Your task to perform on an android device: Search for Italian restaurants on Maps Image 0: 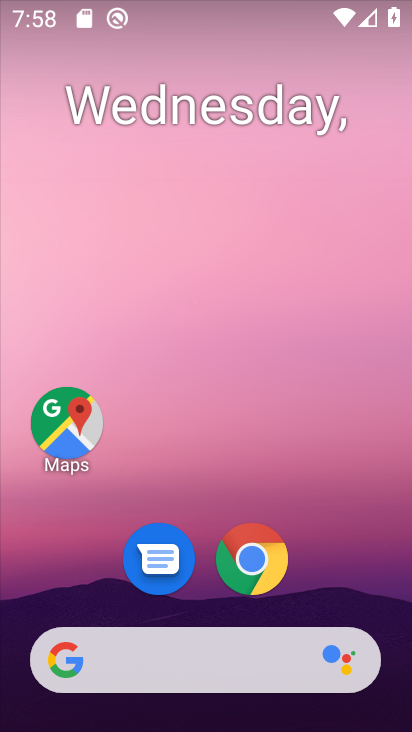
Step 0: click (67, 436)
Your task to perform on an android device: Search for Italian restaurants on Maps Image 1: 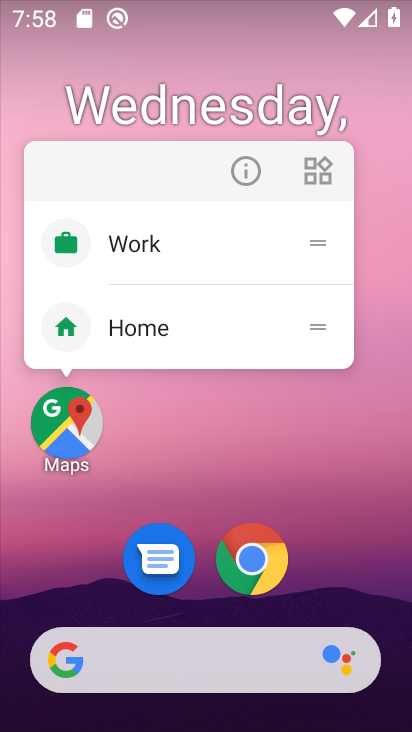
Step 1: click (62, 415)
Your task to perform on an android device: Search for Italian restaurants on Maps Image 2: 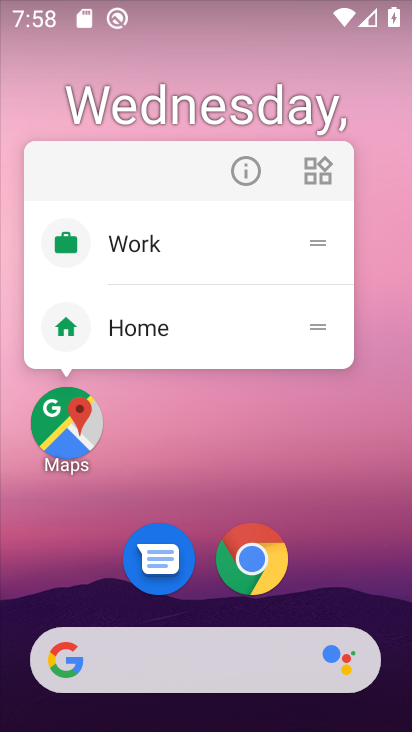
Step 2: drag from (362, 375) to (355, 83)
Your task to perform on an android device: Search for Italian restaurants on Maps Image 3: 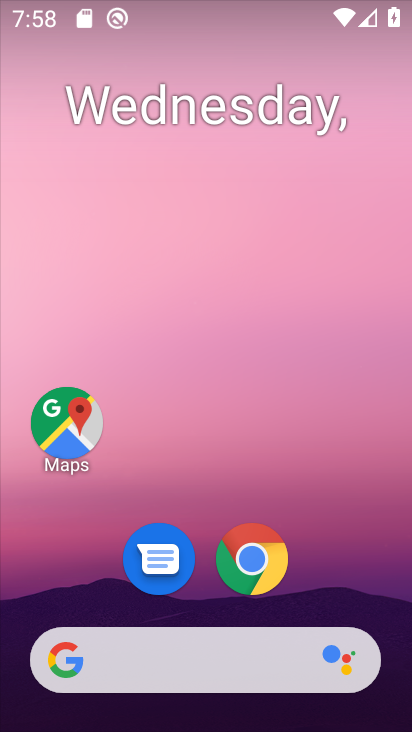
Step 3: drag from (378, 562) to (351, 108)
Your task to perform on an android device: Search for Italian restaurants on Maps Image 4: 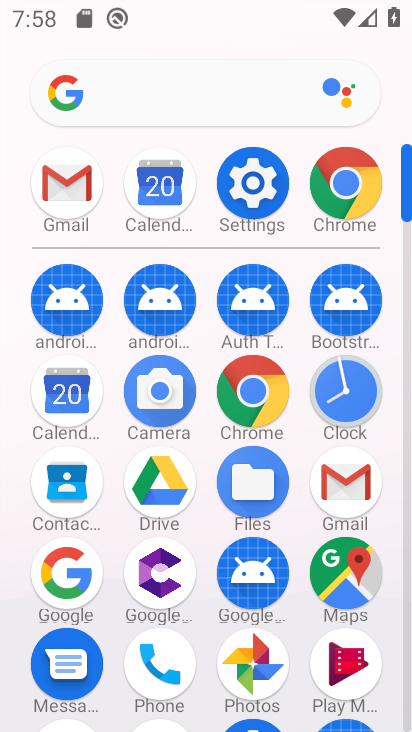
Step 4: click (354, 580)
Your task to perform on an android device: Search for Italian restaurants on Maps Image 5: 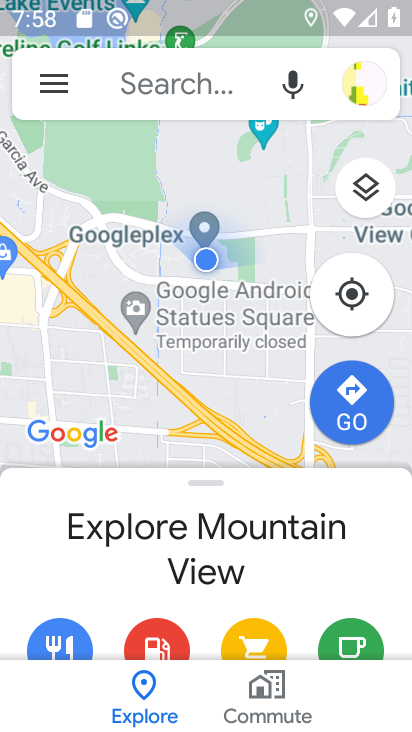
Step 5: click (160, 79)
Your task to perform on an android device: Search for Italian restaurants on Maps Image 6: 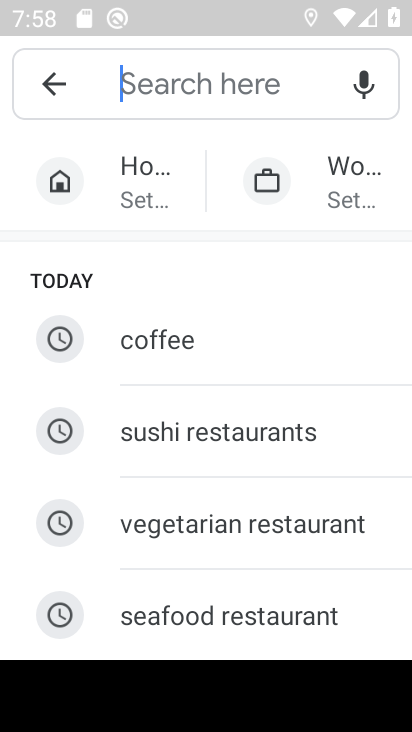
Step 6: type "italian restaurants "
Your task to perform on an android device: Search for Italian restaurants on Maps Image 7: 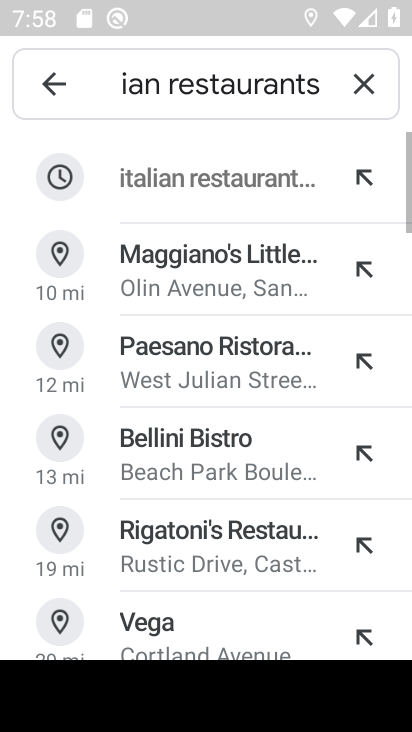
Step 7: click (163, 185)
Your task to perform on an android device: Search for Italian restaurants on Maps Image 8: 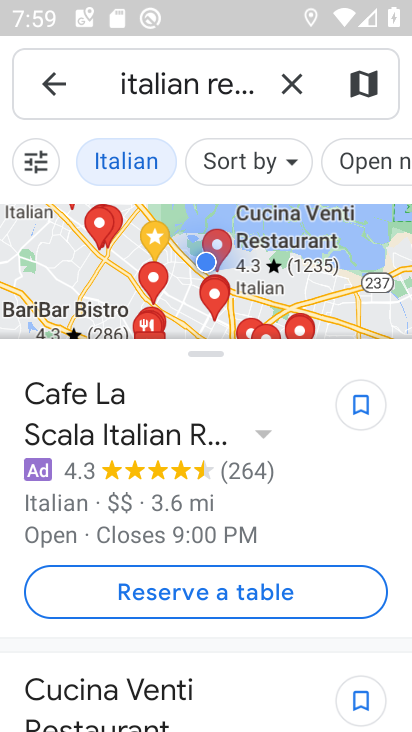
Step 8: task complete